Your task to perform on an android device: change notification settings in the gmail app Image 0: 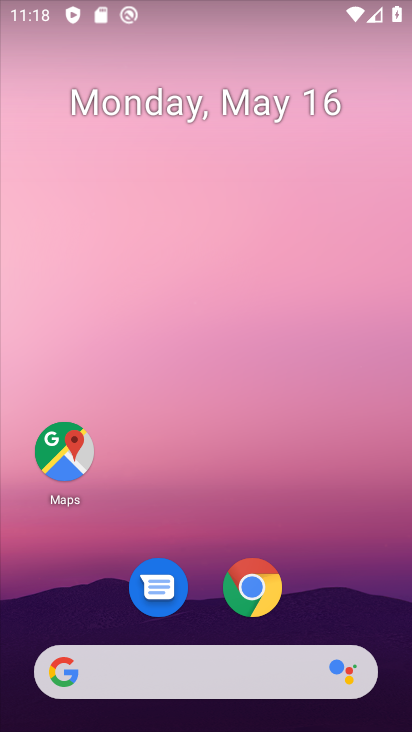
Step 0: drag from (393, 612) to (359, 37)
Your task to perform on an android device: change notification settings in the gmail app Image 1: 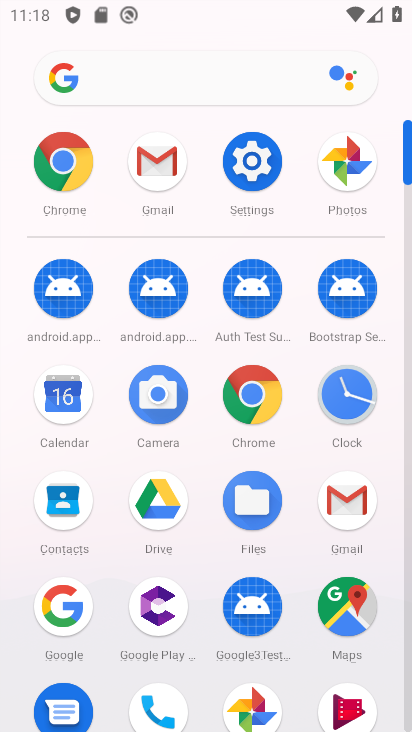
Step 1: click (354, 523)
Your task to perform on an android device: change notification settings in the gmail app Image 2: 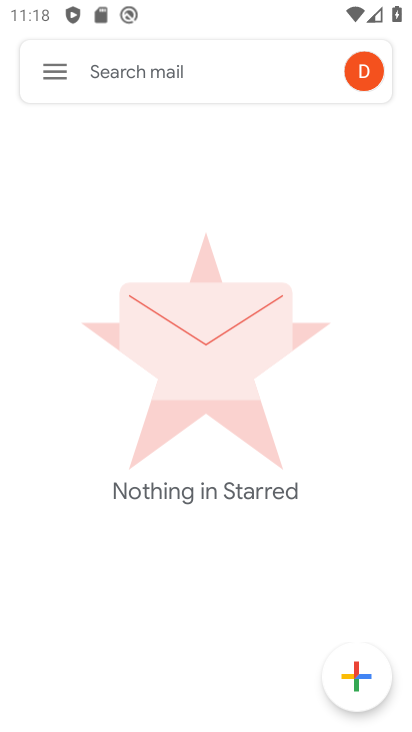
Step 2: click (49, 84)
Your task to perform on an android device: change notification settings in the gmail app Image 3: 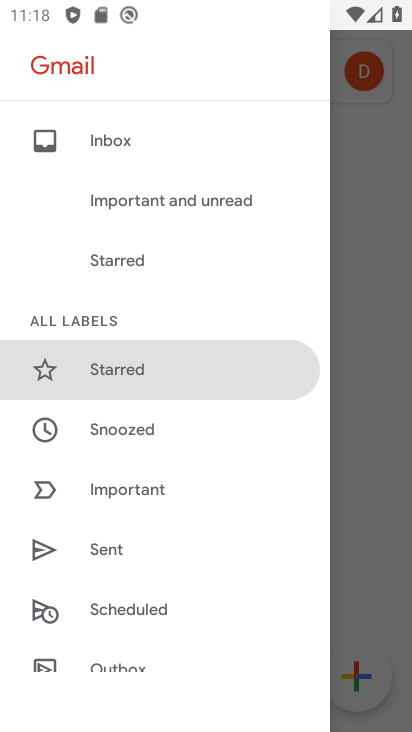
Step 3: drag from (85, 661) to (247, 44)
Your task to perform on an android device: change notification settings in the gmail app Image 4: 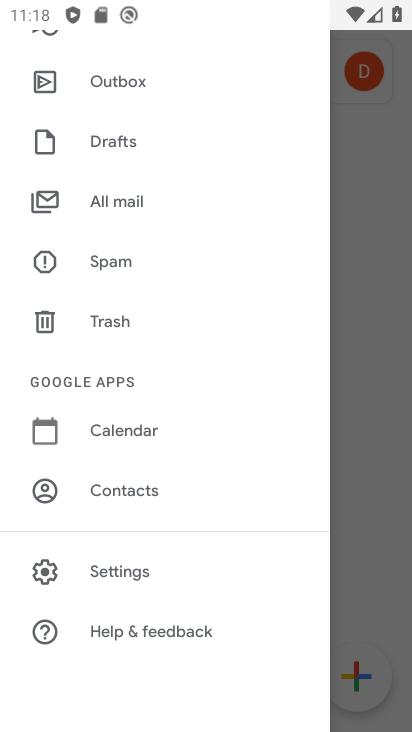
Step 4: click (124, 566)
Your task to perform on an android device: change notification settings in the gmail app Image 5: 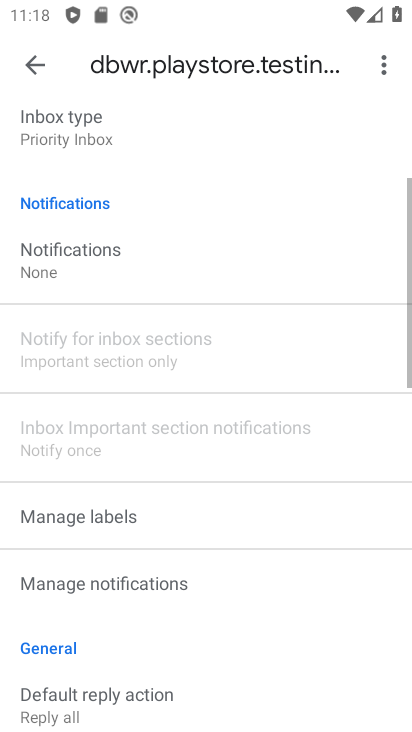
Step 5: click (124, 261)
Your task to perform on an android device: change notification settings in the gmail app Image 6: 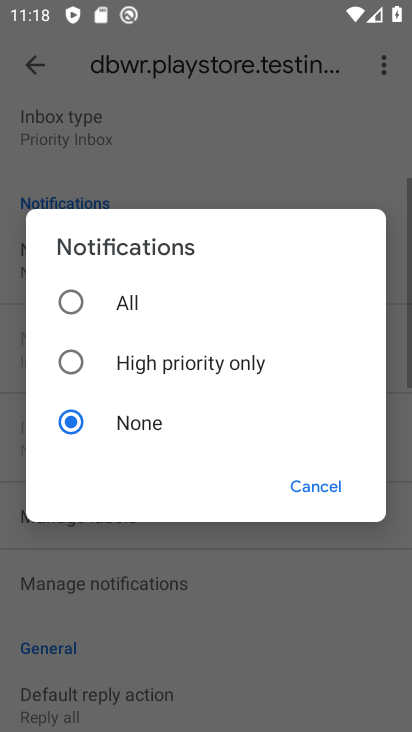
Step 6: click (78, 313)
Your task to perform on an android device: change notification settings in the gmail app Image 7: 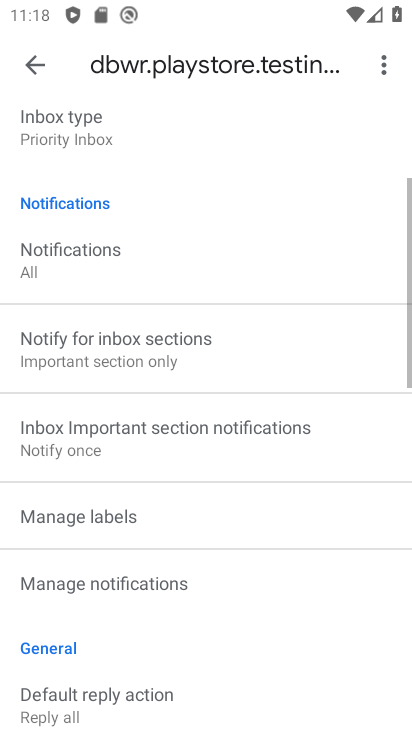
Step 7: task complete